Your task to perform on an android device: check storage Image 0: 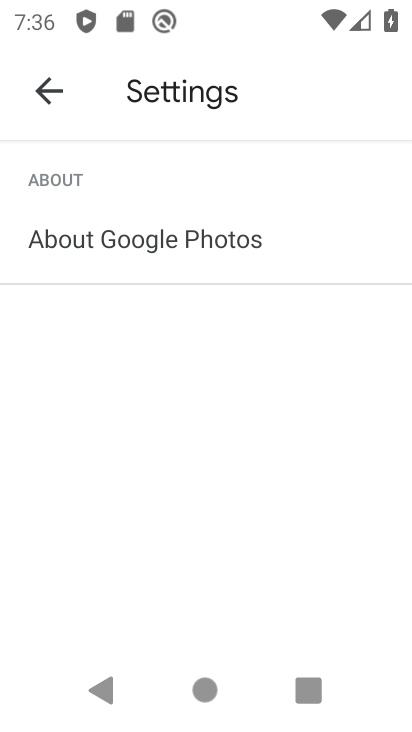
Step 0: press home button
Your task to perform on an android device: check storage Image 1: 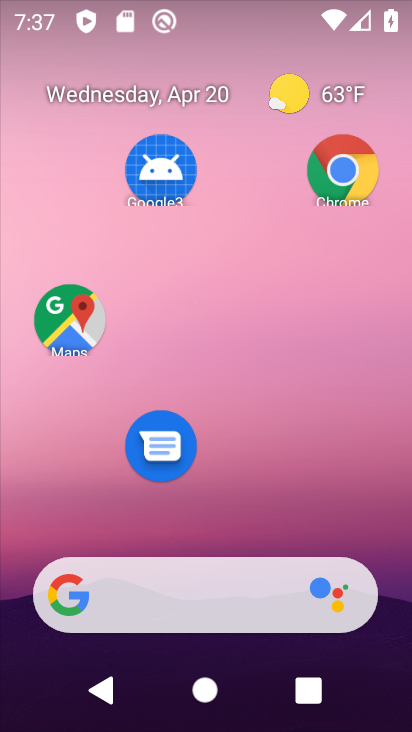
Step 1: drag from (257, 530) to (277, 2)
Your task to perform on an android device: check storage Image 2: 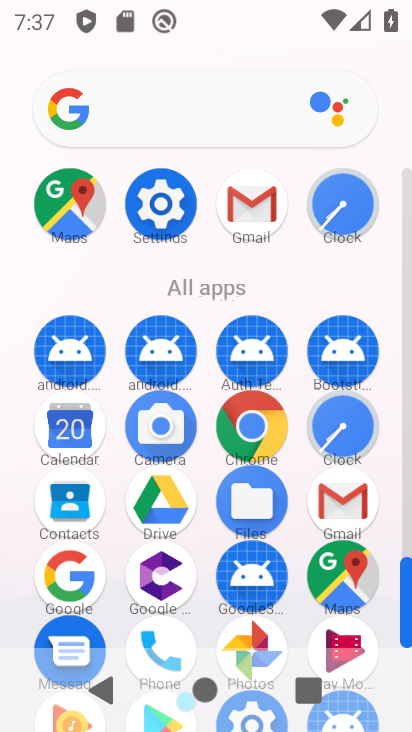
Step 2: click (160, 205)
Your task to perform on an android device: check storage Image 3: 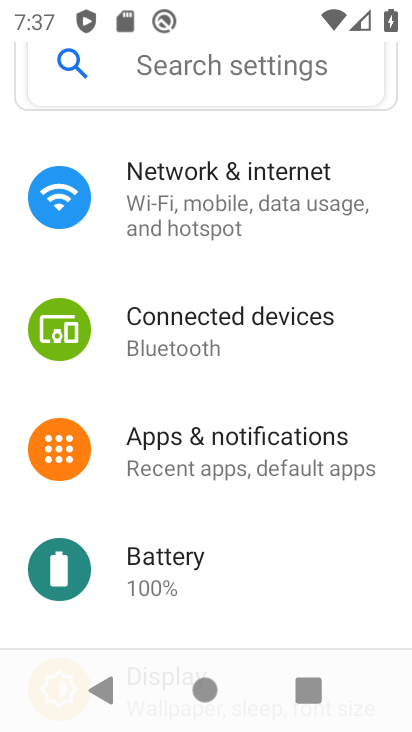
Step 3: drag from (259, 536) to (271, 34)
Your task to perform on an android device: check storage Image 4: 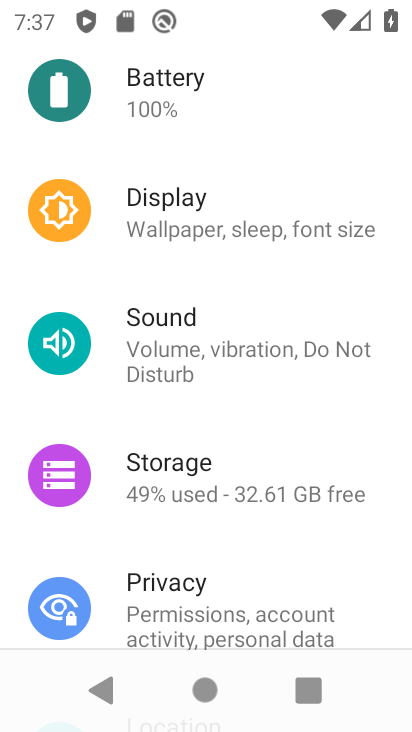
Step 4: click (176, 462)
Your task to perform on an android device: check storage Image 5: 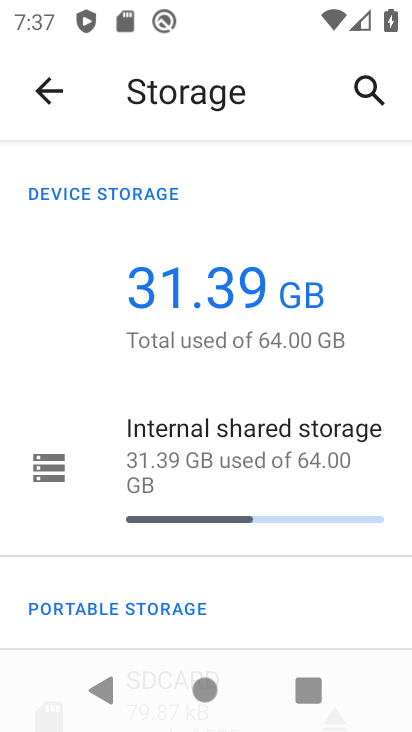
Step 5: task complete